Your task to perform on an android device: Go to notification settings Image 0: 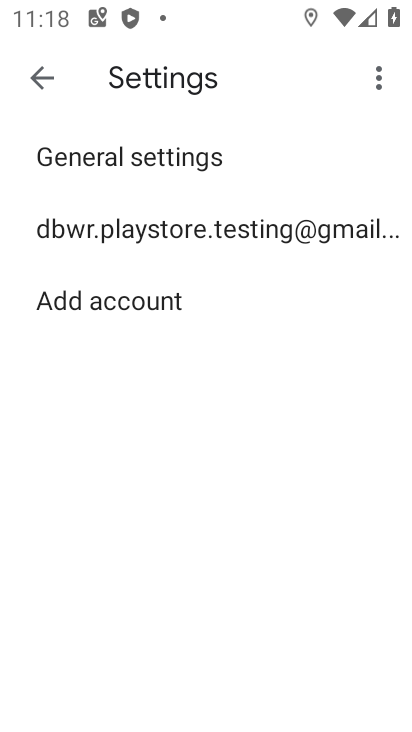
Step 0: press home button
Your task to perform on an android device: Go to notification settings Image 1: 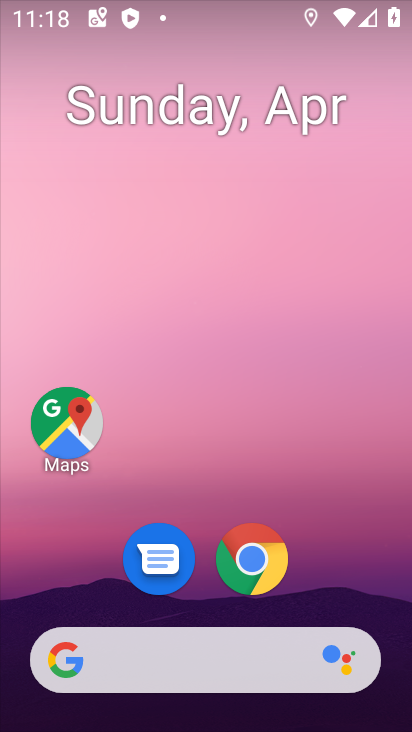
Step 1: drag from (322, 592) to (320, 19)
Your task to perform on an android device: Go to notification settings Image 2: 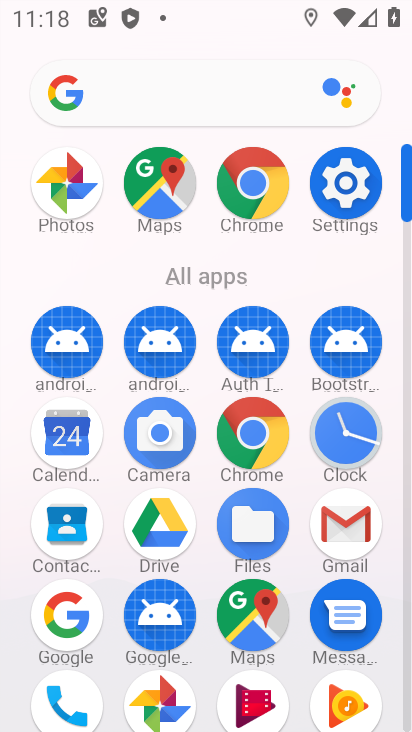
Step 2: click (334, 198)
Your task to perform on an android device: Go to notification settings Image 3: 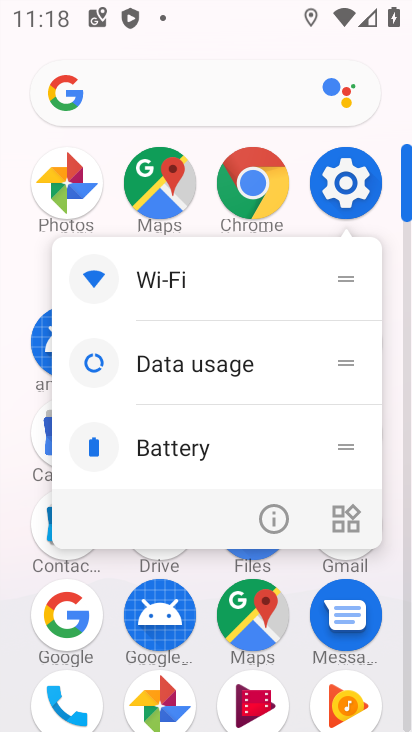
Step 3: click (341, 196)
Your task to perform on an android device: Go to notification settings Image 4: 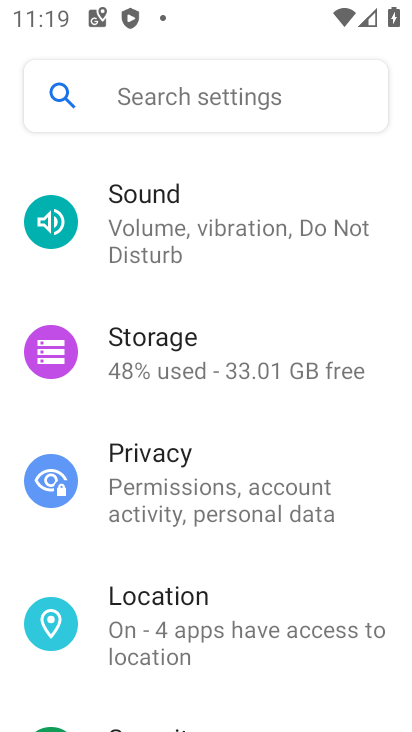
Step 4: drag from (233, 397) to (273, 464)
Your task to perform on an android device: Go to notification settings Image 5: 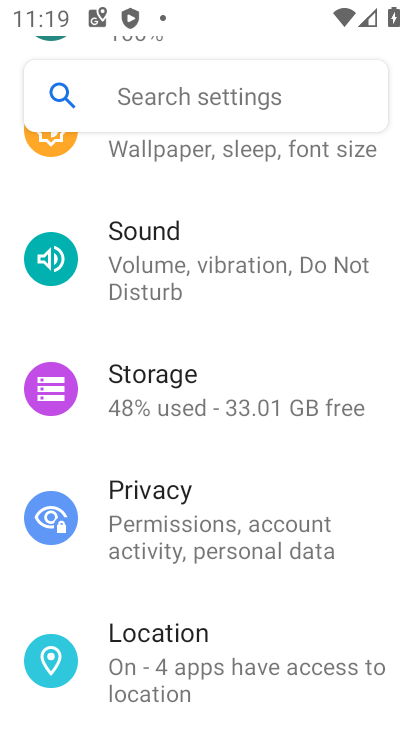
Step 5: drag from (282, 347) to (322, 436)
Your task to perform on an android device: Go to notification settings Image 6: 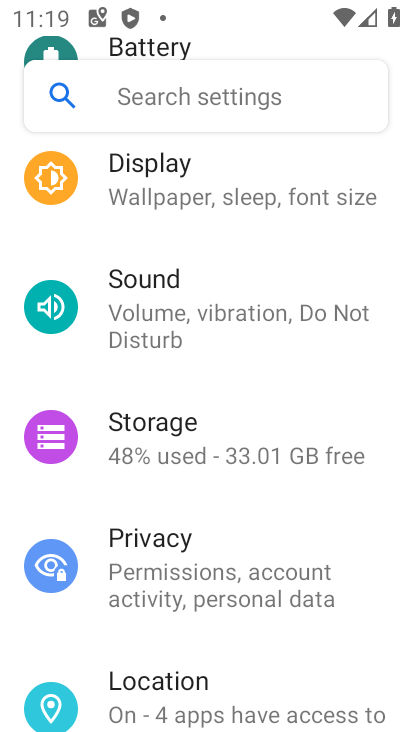
Step 6: drag from (299, 386) to (324, 521)
Your task to perform on an android device: Go to notification settings Image 7: 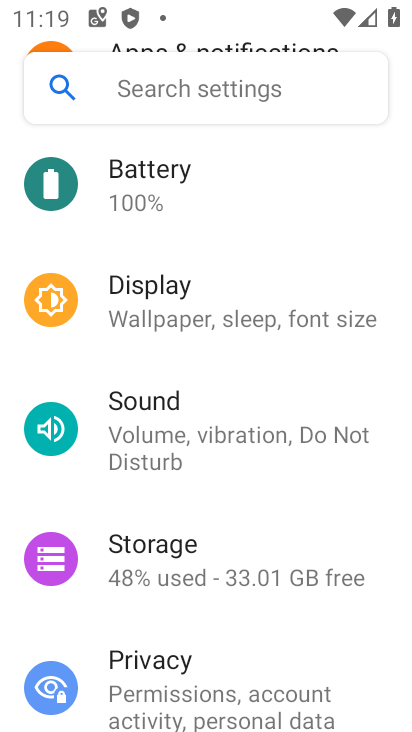
Step 7: drag from (290, 386) to (292, 482)
Your task to perform on an android device: Go to notification settings Image 8: 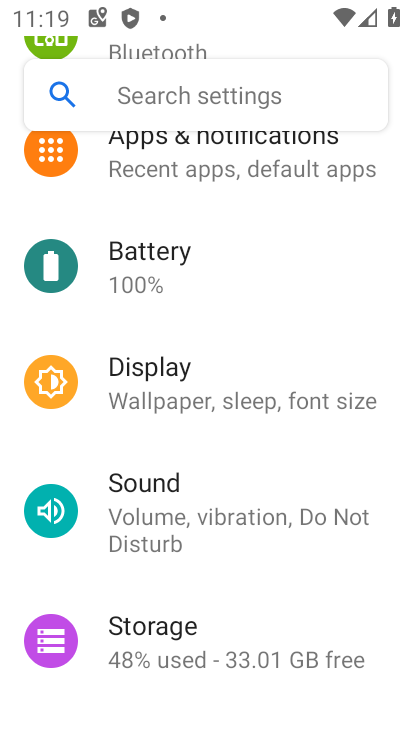
Step 8: drag from (271, 386) to (288, 450)
Your task to perform on an android device: Go to notification settings Image 9: 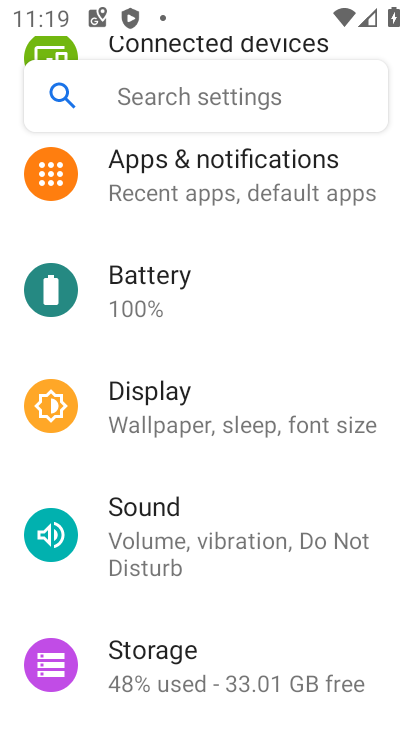
Step 9: drag from (268, 359) to (294, 473)
Your task to perform on an android device: Go to notification settings Image 10: 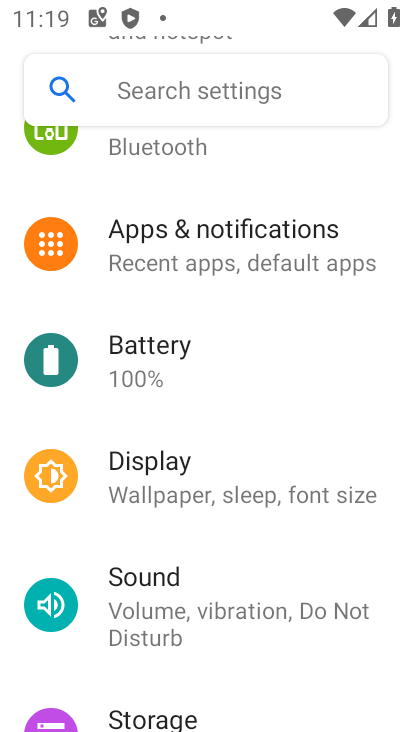
Step 10: click (305, 258)
Your task to perform on an android device: Go to notification settings Image 11: 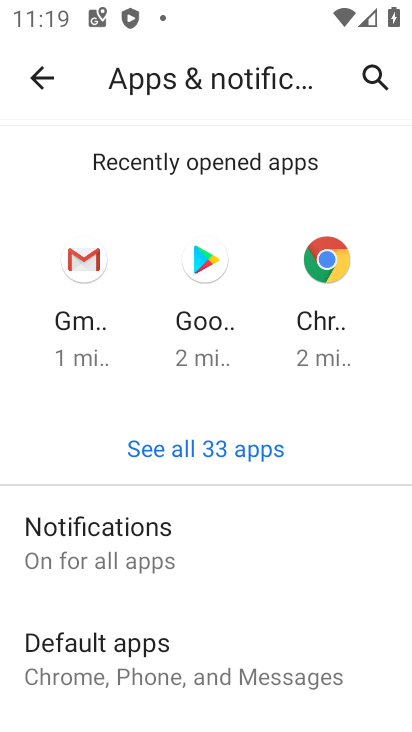
Step 11: click (220, 556)
Your task to perform on an android device: Go to notification settings Image 12: 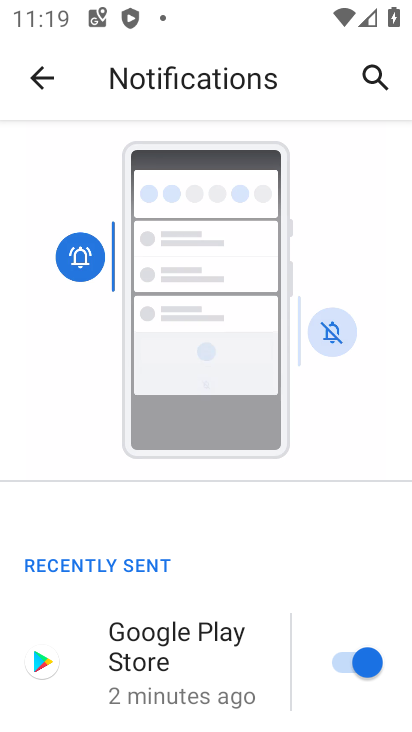
Step 12: task complete